Your task to perform on an android device: Find coffee shops on Maps Image 0: 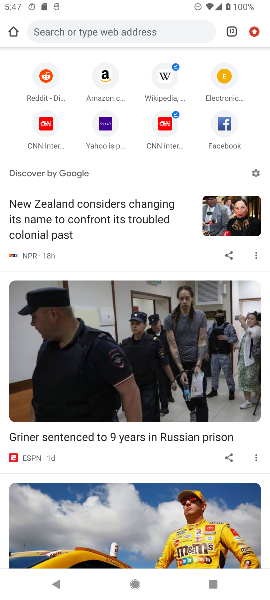
Step 0: press back button
Your task to perform on an android device: Find coffee shops on Maps Image 1: 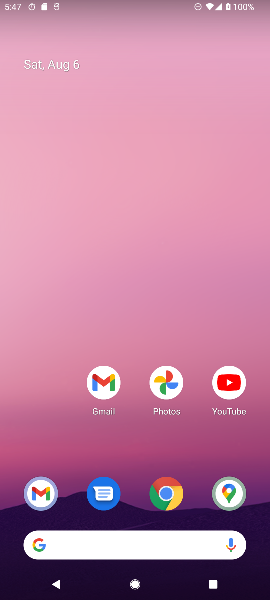
Step 1: drag from (180, 555) to (149, 438)
Your task to perform on an android device: Find coffee shops on Maps Image 2: 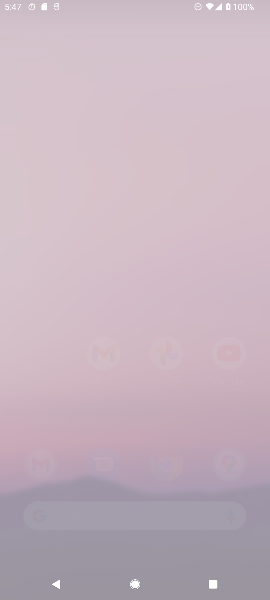
Step 2: click (137, 343)
Your task to perform on an android device: Find coffee shops on Maps Image 3: 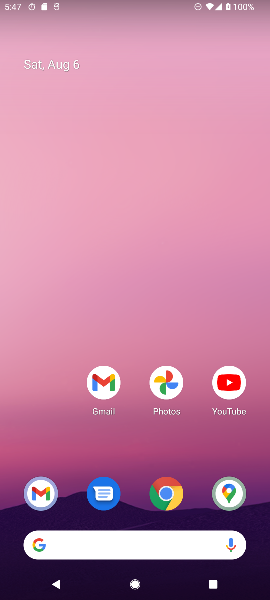
Step 3: drag from (184, 453) to (133, 148)
Your task to perform on an android device: Find coffee shops on Maps Image 4: 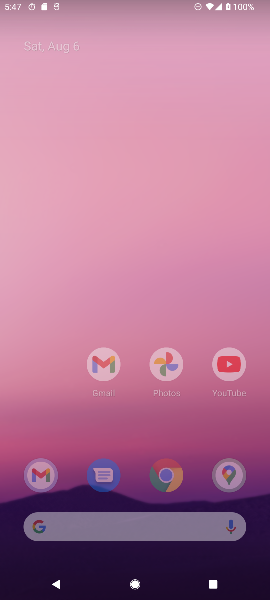
Step 4: drag from (155, 450) to (125, 72)
Your task to perform on an android device: Find coffee shops on Maps Image 5: 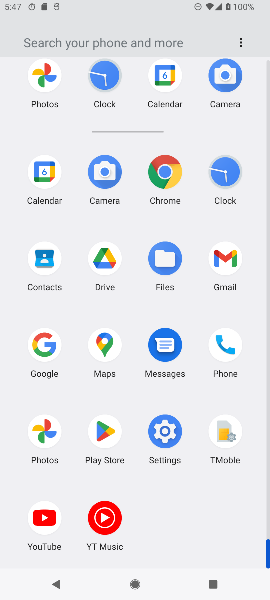
Step 5: click (106, 352)
Your task to perform on an android device: Find coffee shops on Maps Image 6: 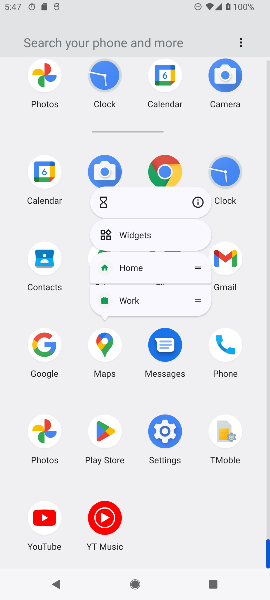
Step 6: click (110, 345)
Your task to perform on an android device: Find coffee shops on Maps Image 7: 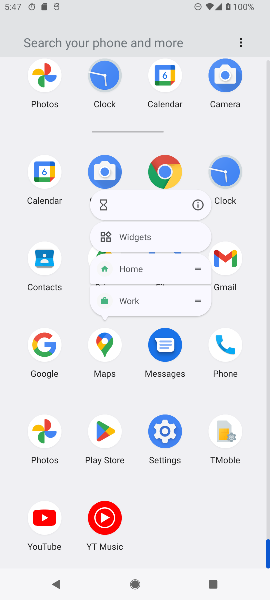
Step 7: click (110, 346)
Your task to perform on an android device: Find coffee shops on Maps Image 8: 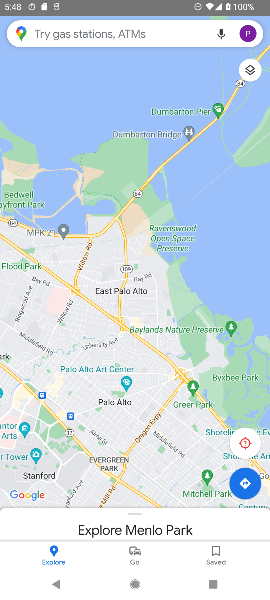
Step 8: click (43, 35)
Your task to perform on an android device: Find coffee shops on Maps Image 9: 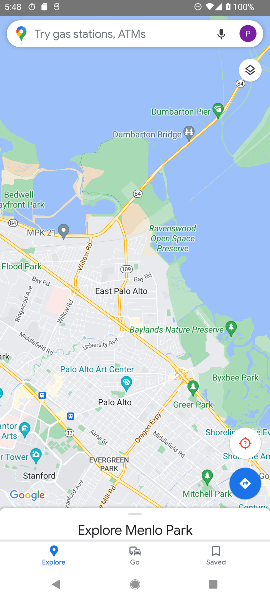
Step 9: click (44, 34)
Your task to perform on an android device: Find coffee shops on Maps Image 10: 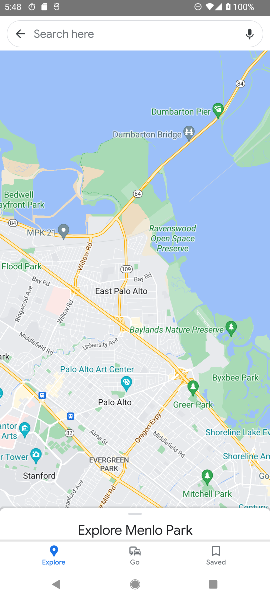
Step 10: click (44, 33)
Your task to perform on an android device: Find coffee shops on Maps Image 11: 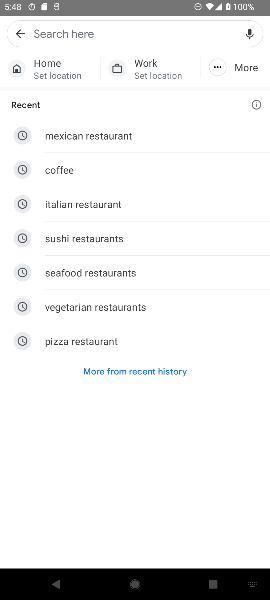
Step 11: click (71, 167)
Your task to perform on an android device: Find coffee shops on Maps Image 12: 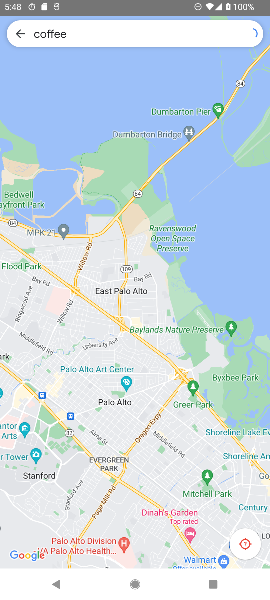
Step 12: click (71, 168)
Your task to perform on an android device: Find coffee shops on Maps Image 13: 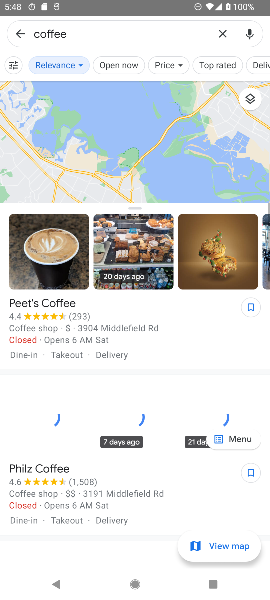
Step 13: task complete